Your task to perform on an android device: set default search engine in the chrome app Image 0: 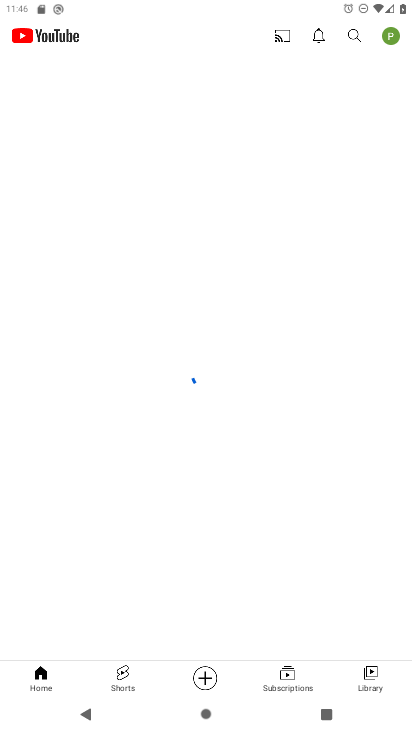
Step 0: press home button
Your task to perform on an android device: set default search engine in the chrome app Image 1: 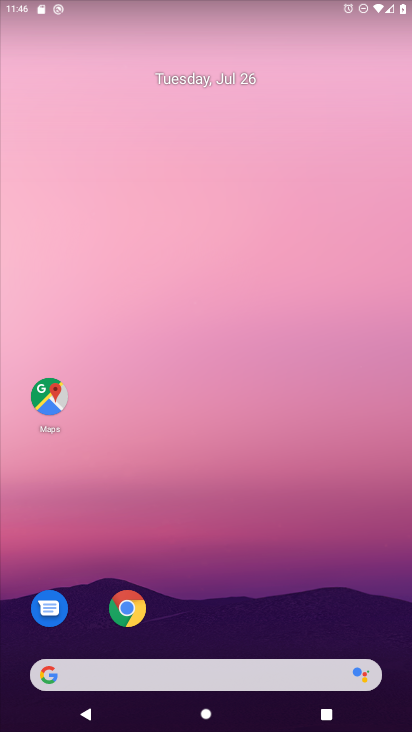
Step 1: drag from (245, 599) to (245, 50)
Your task to perform on an android device: set default search engine in the chrome app Image 2: 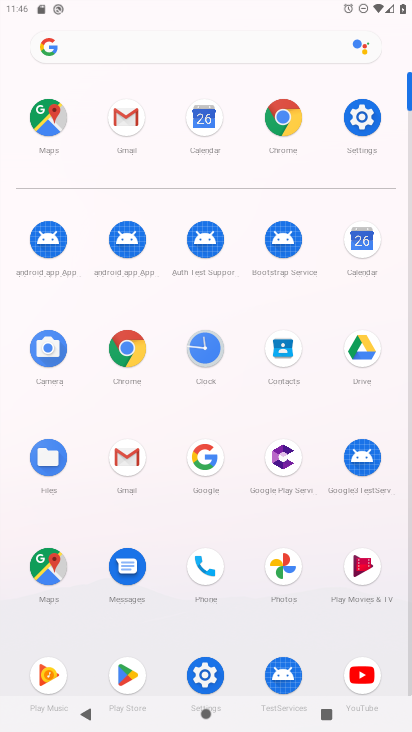
Step 2: click (279, 115)
Your task to perform on an android device: set default search engine in the chrome app Image 3: 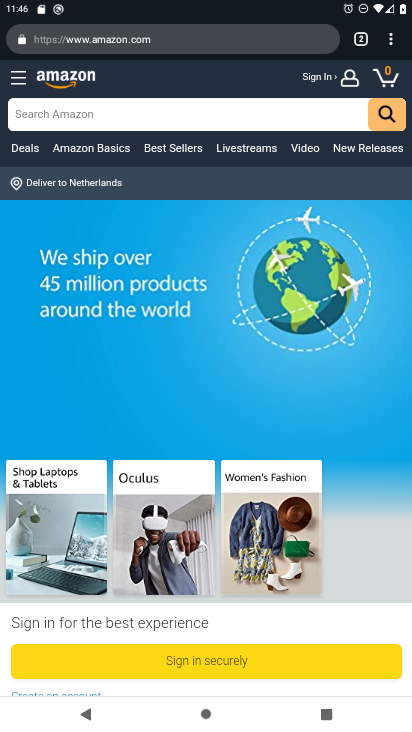
Step 3: drag from (387, 42) to (253, 464)
Your task to perform on an android device: set default search engine in the chrome app Image 4: 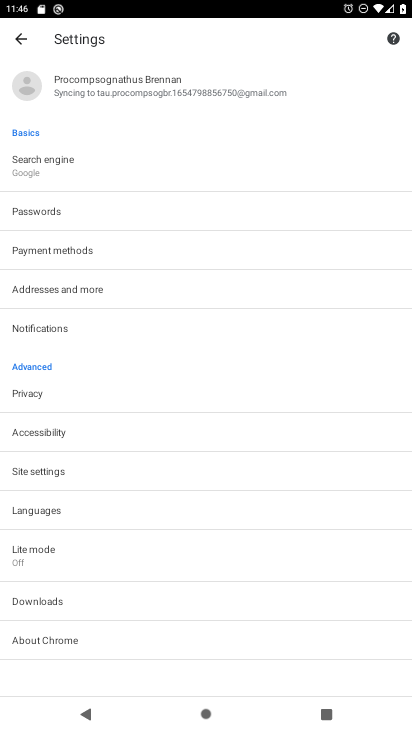
Step 4: click (79, 167)
Your task to perform on an android device: set default search engine in the chrome app Image 5: 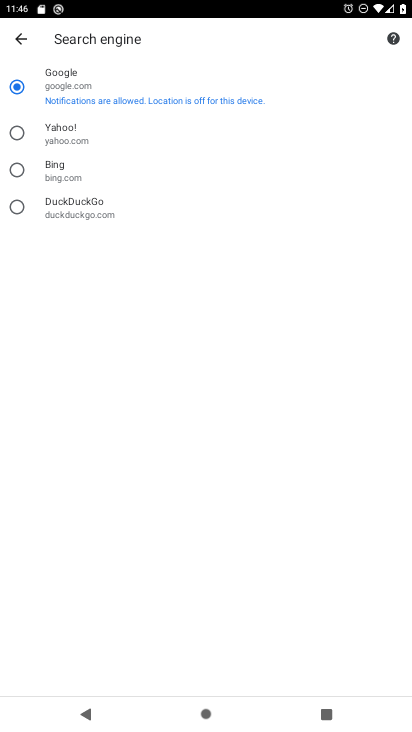
Step 5: task complete